Your task to perform on an android device: Go to network settings Image 0: 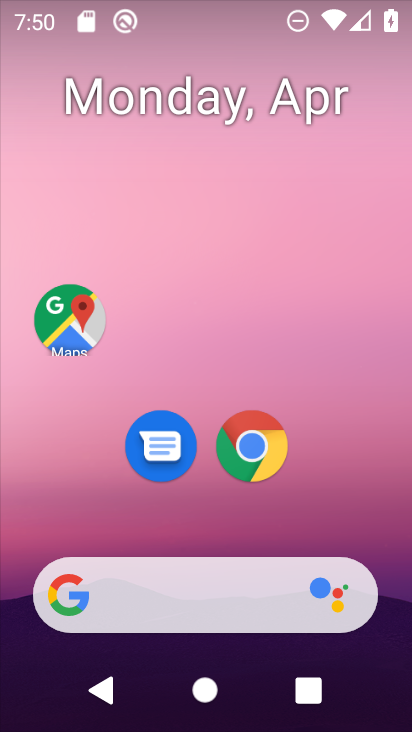
Step 0: drag from (392, 521) to (326, 59)
Your task to perform on an android device: Go to network settings Image 1: 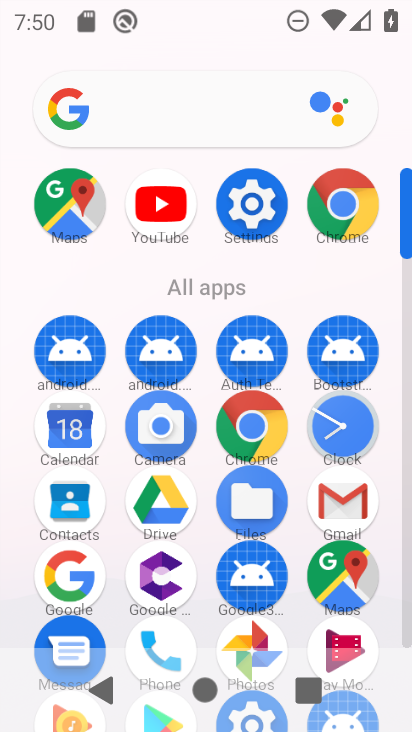
Step 1: drag from (20, 565) to (9, 208)
Your task to perform on an android device: Go to network settings Image 2: 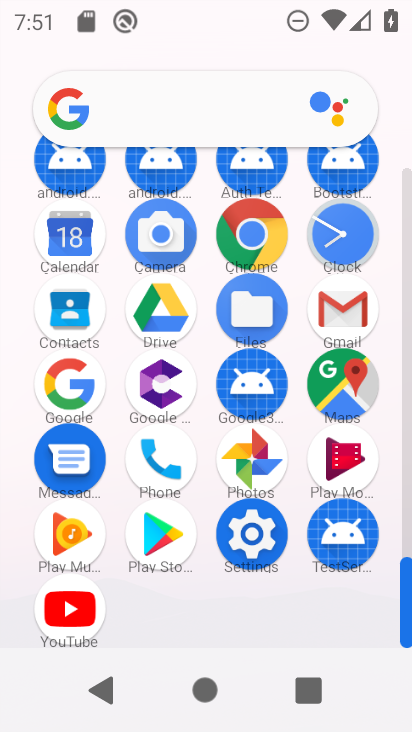
Step 2: drag from (15, 189) to (16, 447)
Your task to perform on an android device: Go to network settings Image 3: 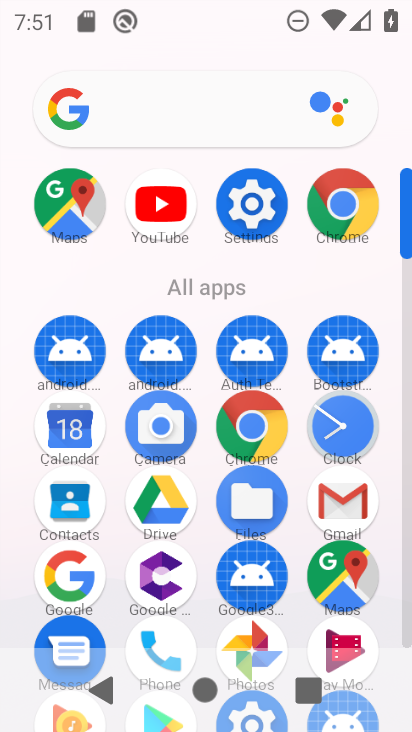
Step 3: click (246, 202)
Your task to perform on an android device: Go to network settings Image 4: 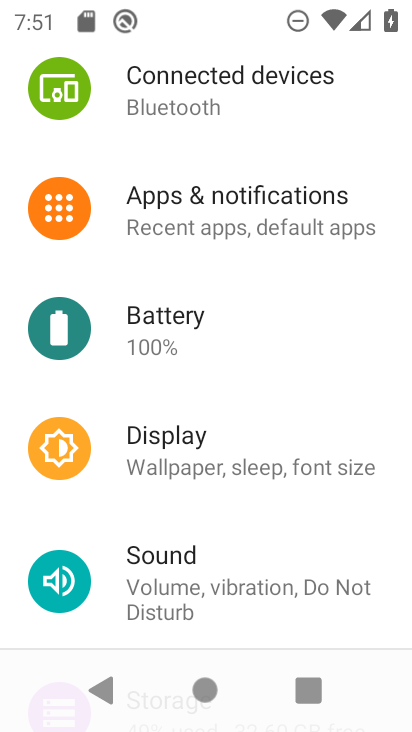
Step 4: drag from (257, 207) to (250, 506)
Your task to perform on an android device: Go to network settings Image 5: 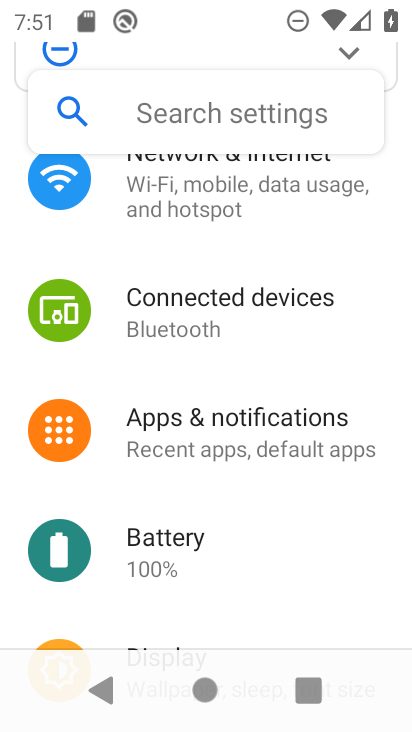
Step 5: drag from (280, 243) to (259, 554)
Your task to perform on an android device: Go to network settings Image 6: 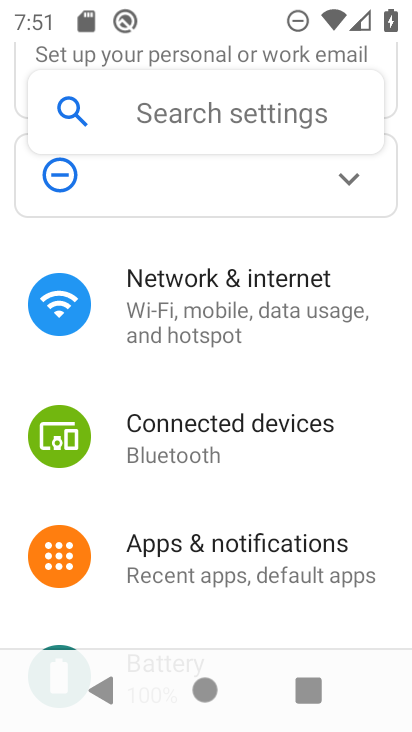
Step 6: click (241, 324)
Your task to perform on an android device: Go to network settings Image 7: 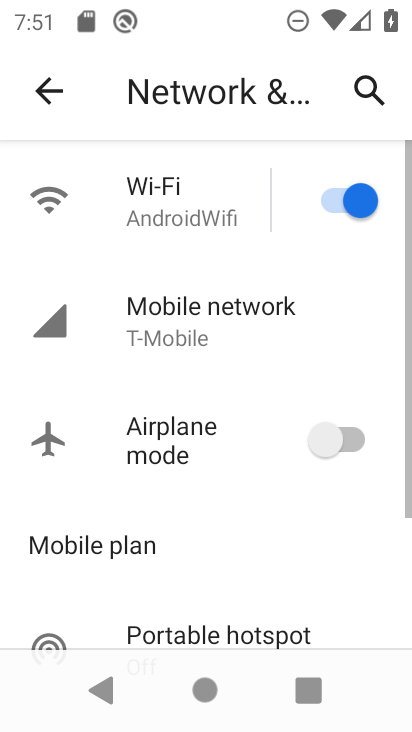
Step 7: click (241, 324)
Your task to perform on an android device: Go to network settings Image 8: 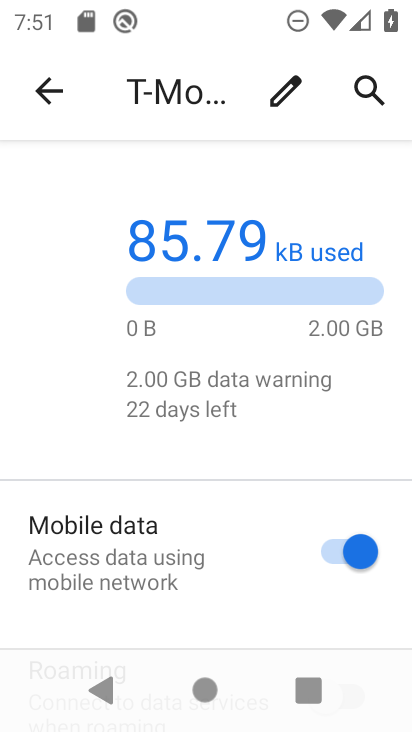
Step 8: drag from (221, 526) to (230, 222)
Your task to perform on an android device: Go to network settings Image 9: 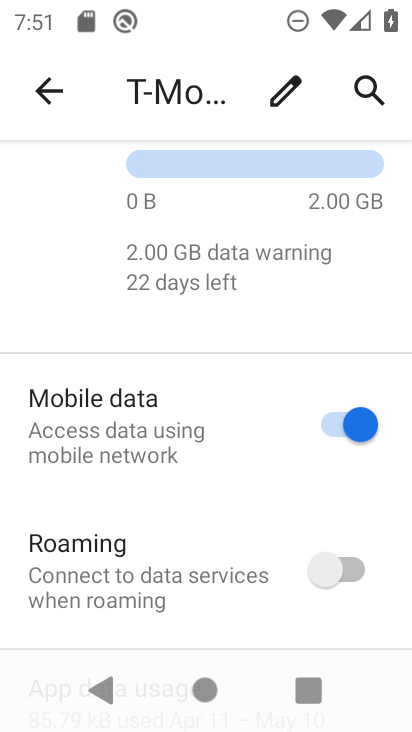
Step 9: click (57, 74)
Your task to perform on an android device: Go to network settings Image 10: 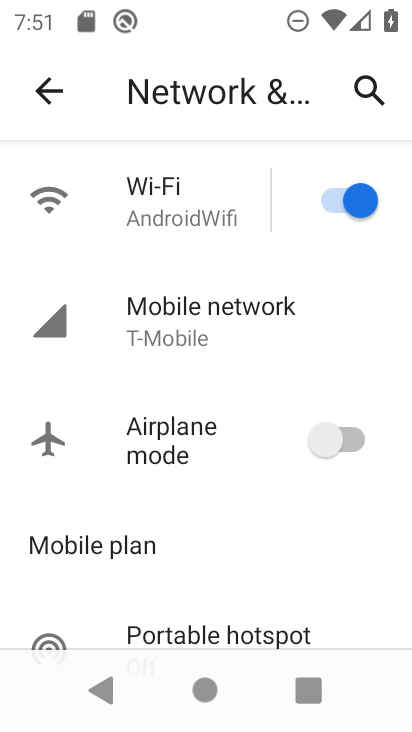
Step 10: task complete